Your task to perform on an android device: see sites visited before in the chrome app Image 0: 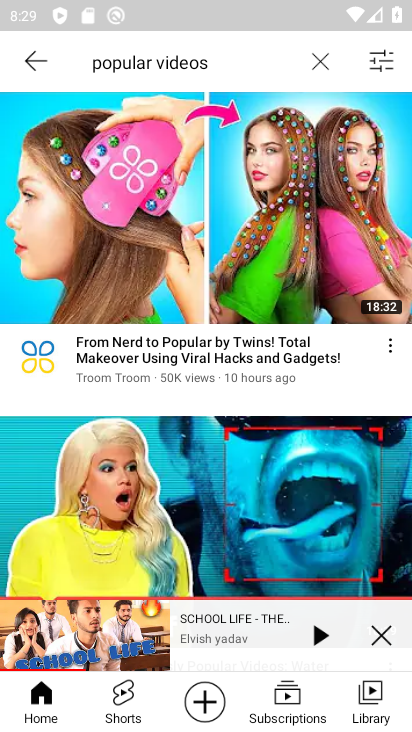
Step 0: press home button
Your task to perform on an android device: see sites visited before in the chrome app Image 1: 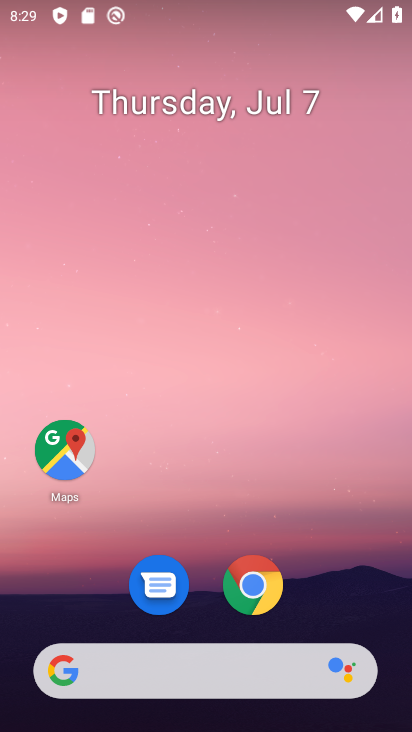
Step 1: click (250, 585)
Your task to perform on an android device: see sites visited before in the chrome app Image 2: 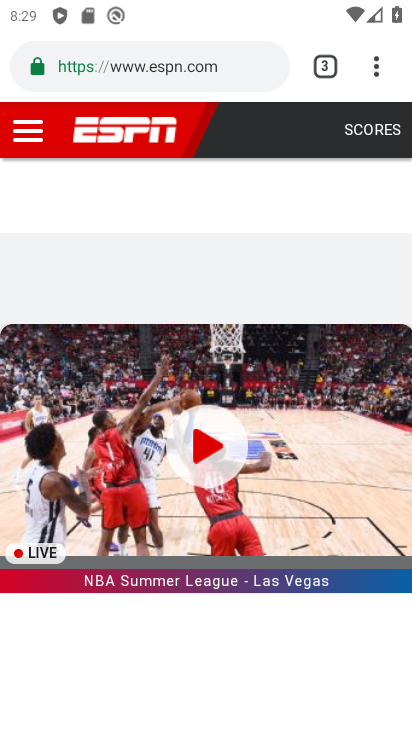
Step 2: click (374, 64)
Your task to perform on an android device: see sites visited before in the chrome app Image 3: 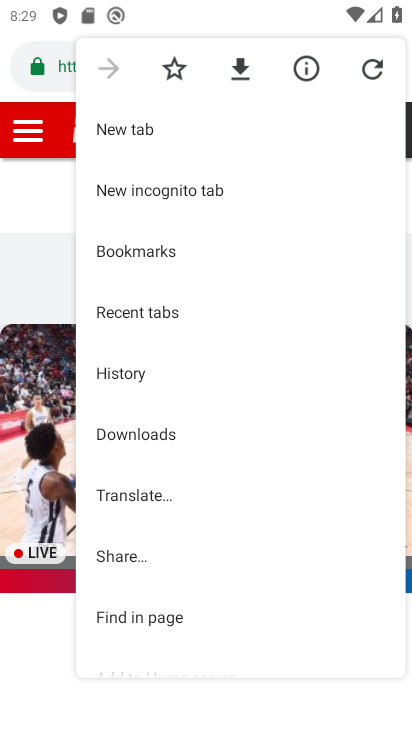
Step 3: click (153, 308)
Your task to perform on an android device: see sites visited before in the chrome app Image 4: 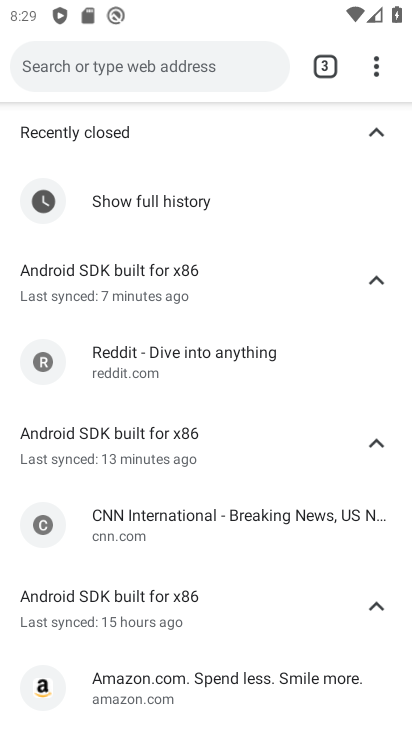
Step 4: task complete